Your task to perform on an android device: Go to Yahoo.com Image 0: 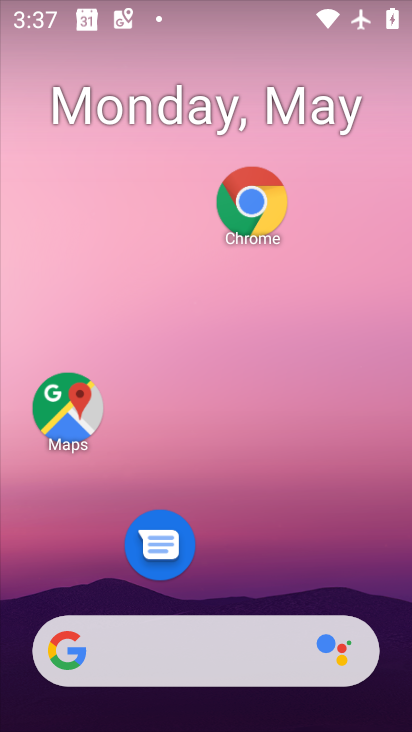
Step 0: click (247, 211)
Your task to perform on an android device: Go to Yahoo.com Image 1: 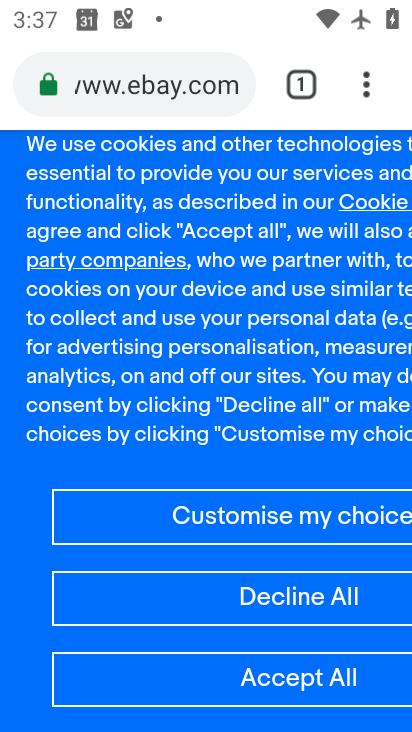
Step 1: click (372, 101)
Your task to perform on an android device: Go to Yahoo.com Image 2: 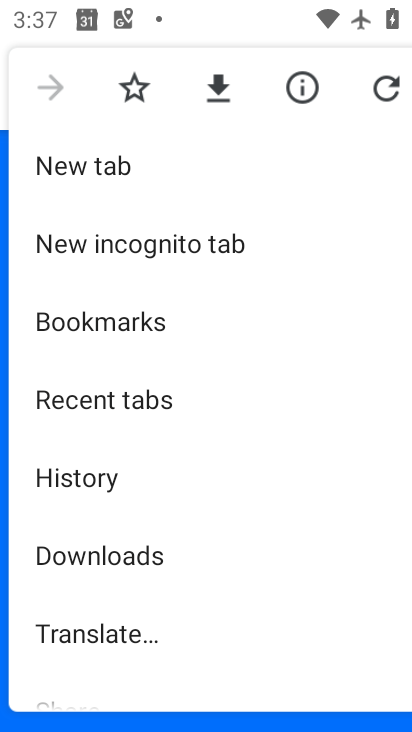
Step 2: drag from (154, 621) to (209, 254)
Your task to perform on an android device: Go to Yahoo.com Image 3: 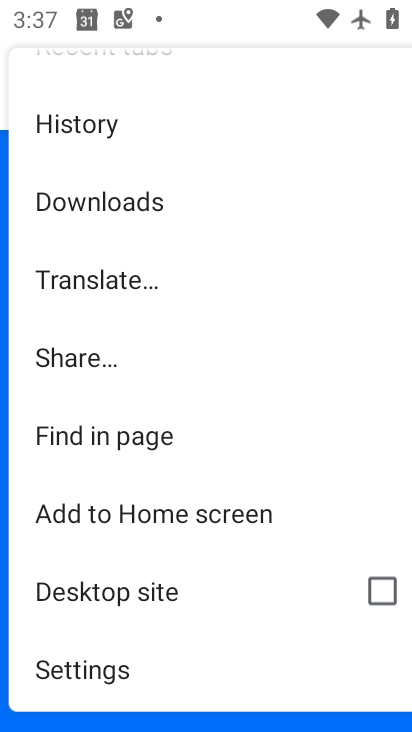
Step 3: press back button
Your task to perform on an android device: Go to Yahoo.com Image 4: 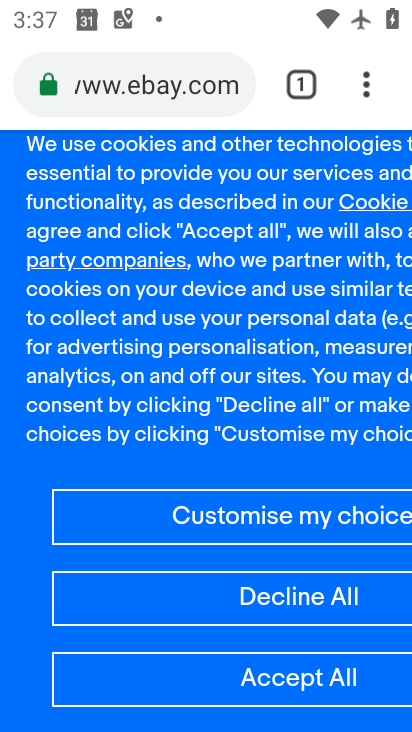
Step 4: click (295, 94)
Your task to perform on an android device: Go to Yahoo.com Image 5: 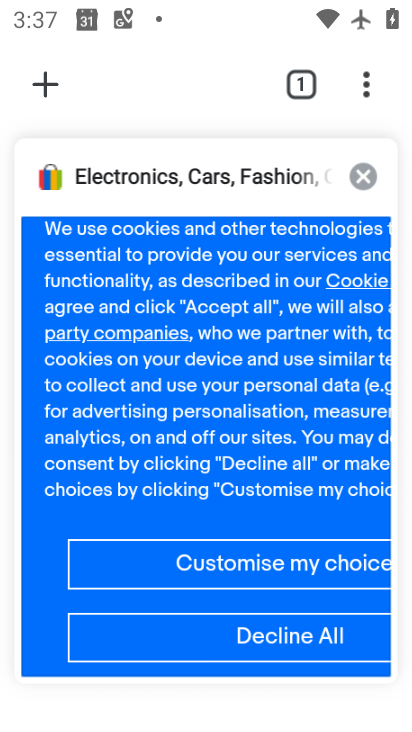
Step 5: click (36, 84)
Your task to perform on an android device: Go to Yahoo.com Image 6: 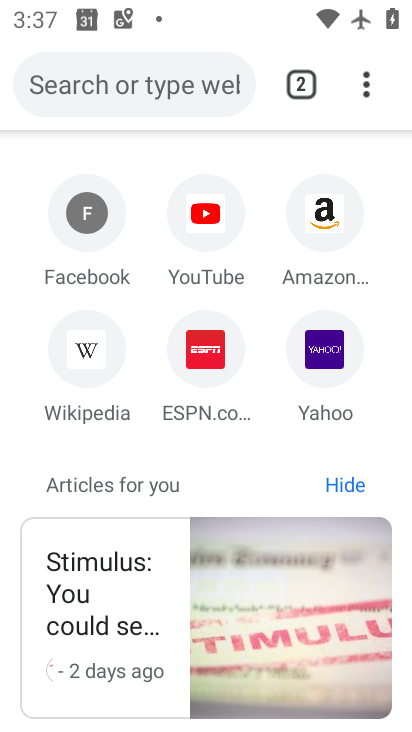
Step 6: click (318, 378)
Your task to perform on an android device: Go to Yahoo.com Image 7: 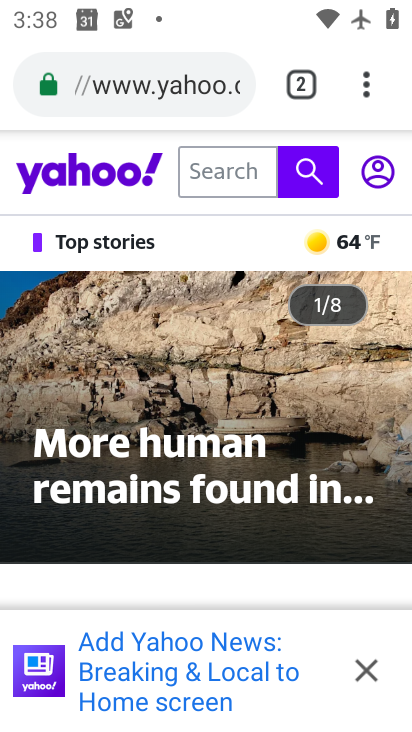
Step 7: task complete